Your task to perform on an android device: refresh tabs in the chrome app Image 0: 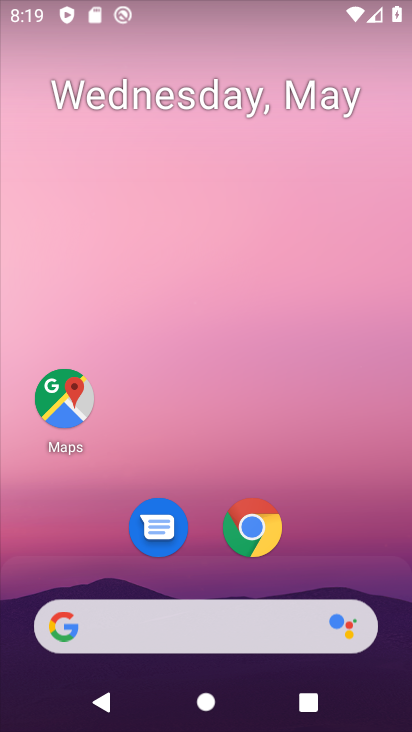
Step 0: drag from (276, 625) to (270, 120)
Your task to perform on an android device: refresh tabs in the chrome app Image 1: 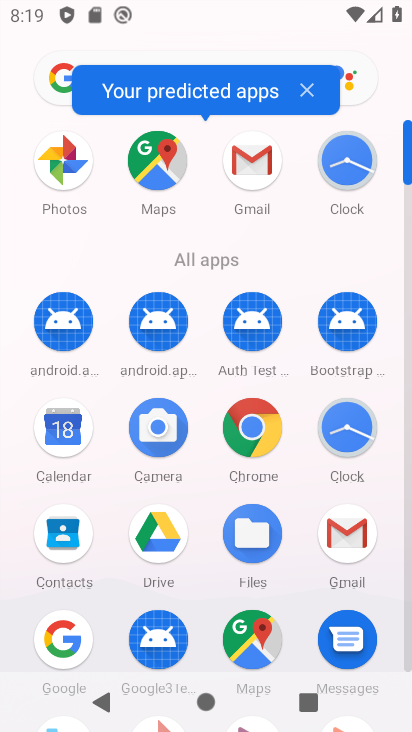
Step 1: click (234, 441)
Your task to perform on an android device: refresh tabs in the chrome app Image 2: 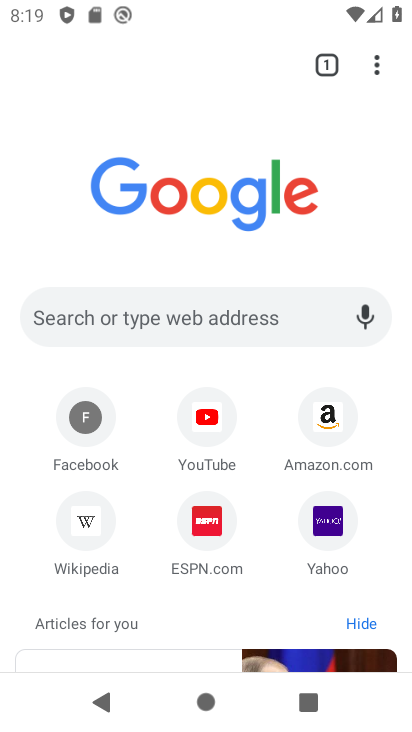
Step 2: click (375, 62)
Your task to perform on an android device: refresh tabs in the chrome app Image 3: 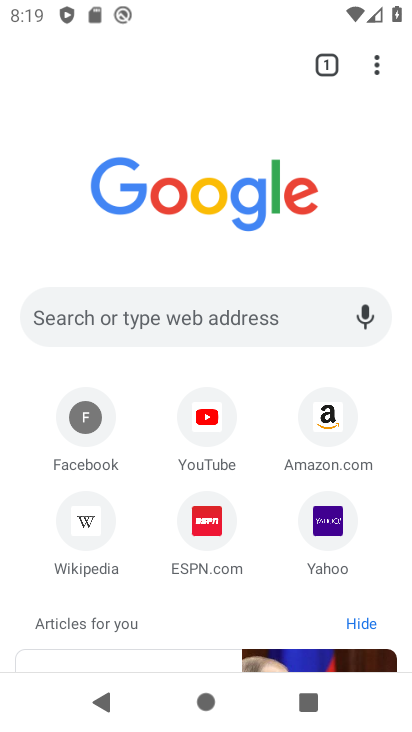
Step 3: press home button
Your task to perform on an android device: refresh tabs in the chrome app Image 4: 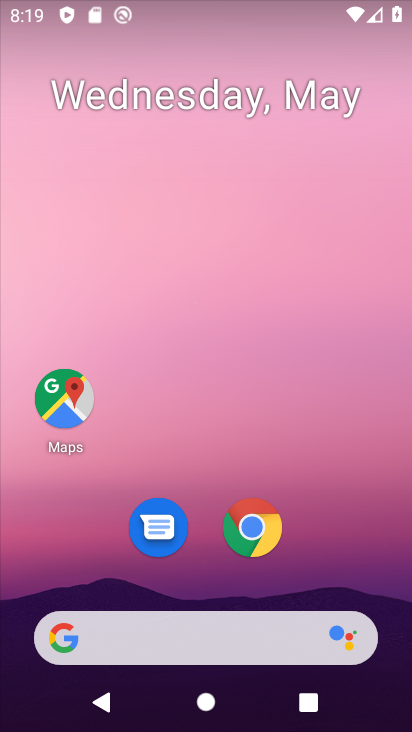
Step 4: drag from (330, 587) to (320, 180)
Your task to perform on an android device: refresh tabs in the chrome app Image 5: 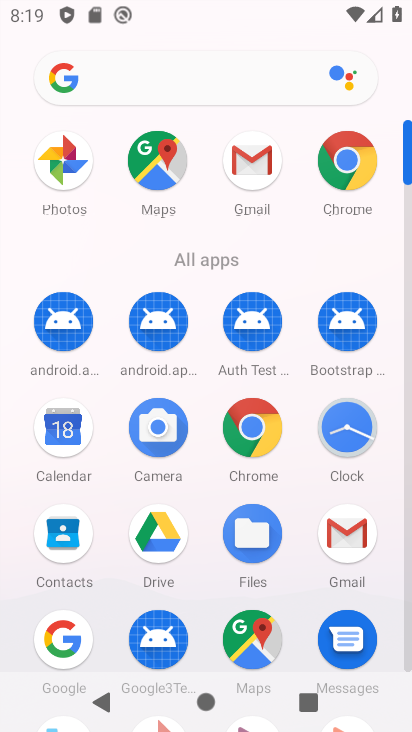
Step 5: click (263, 425)
Your task to perform on an android device: refresh tabs in the chrome app Image 6: 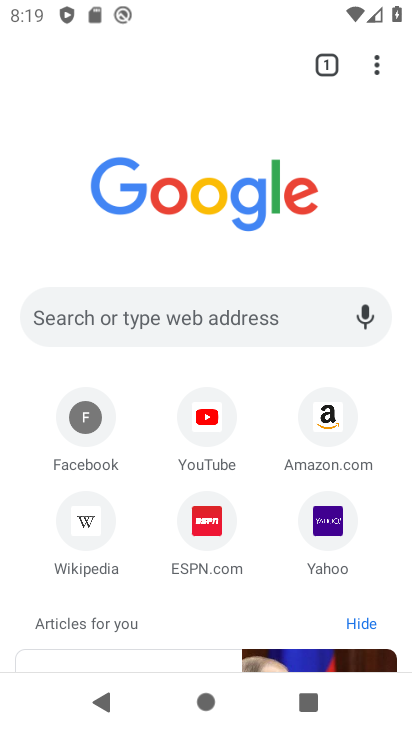
Step 6: task complete